Your task to perform on an android device: search for starred emails in the gmail app Image 0: 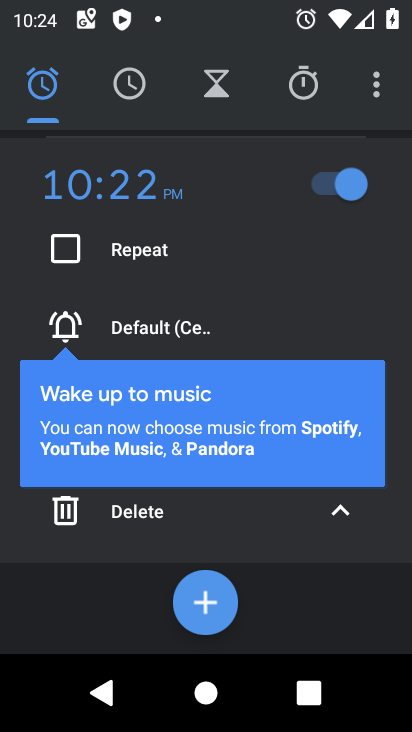
Step 0: press home button
Your task to perform on an android device: search for starred emails in the gmail app Image 1: 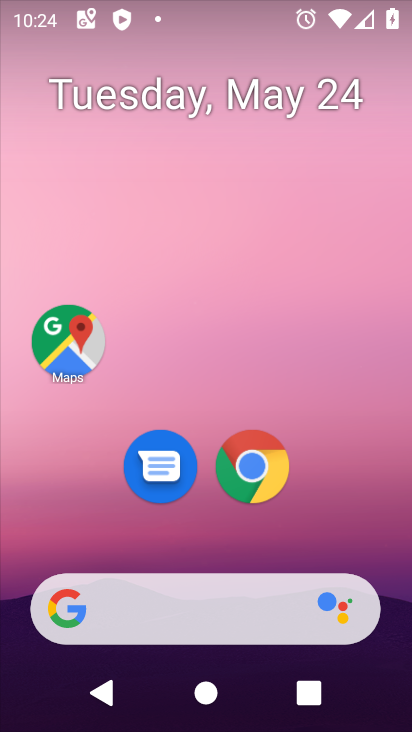
Step 1: drag from (390, 558) to (403, 178)
Your task to perform on an android device: search for starred emails in the gmail app Image 2: 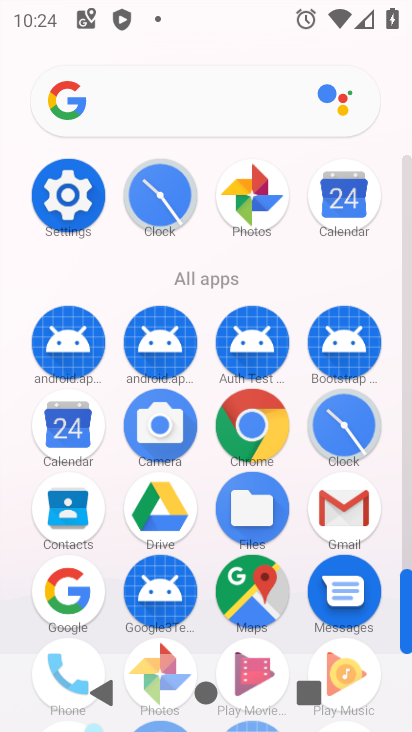
Step 2: click (345, 524)
Your task to perform on an android device: search for starred emails in the gmail app Image 3: 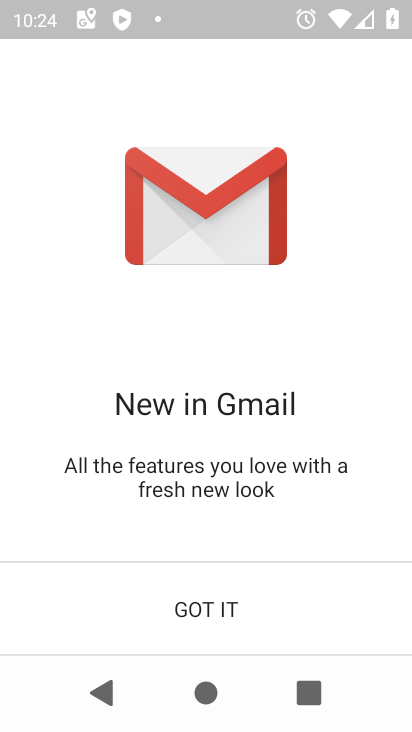
Step 3: click (270, 607)
Your task to perform on an android device: search for starred emails in the gmail app Image 4: 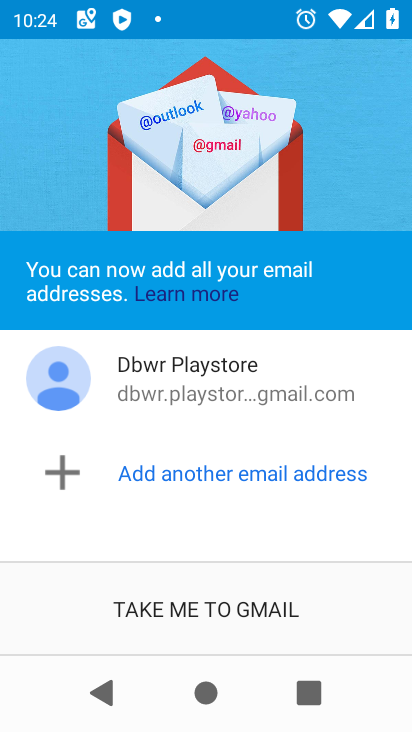
Step 4: click (270, 607)
Your task to perform on an android device: search for starred emails in the gmail app Image 5: 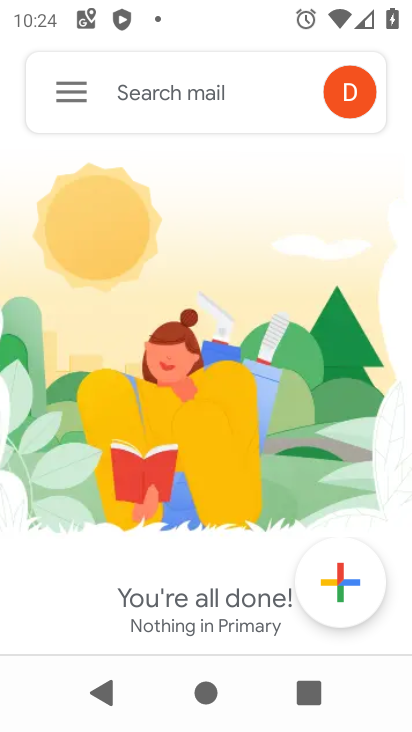
Step 5: click (74, 92)
Your task to perform on an android device: search for starred emails in the gmail app Image 6: 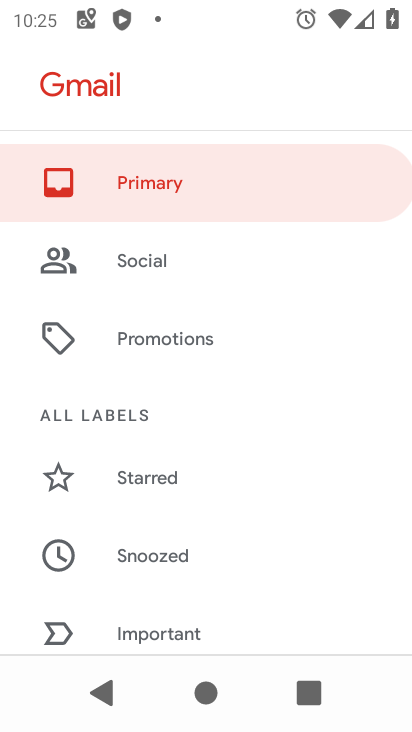
Step 6: click (182, 489)
Your task to perform on an android device: search for starred emails in the gmail app Image 7: 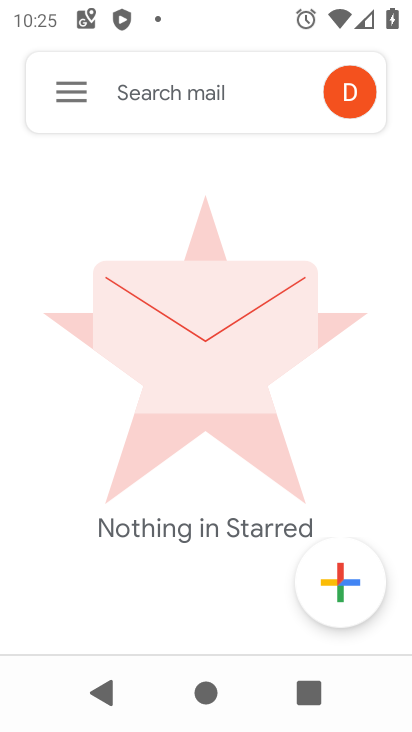
Step 7: task complete